Your task to perform on an android device: Open calendar and show me the second week of next month Image 0: 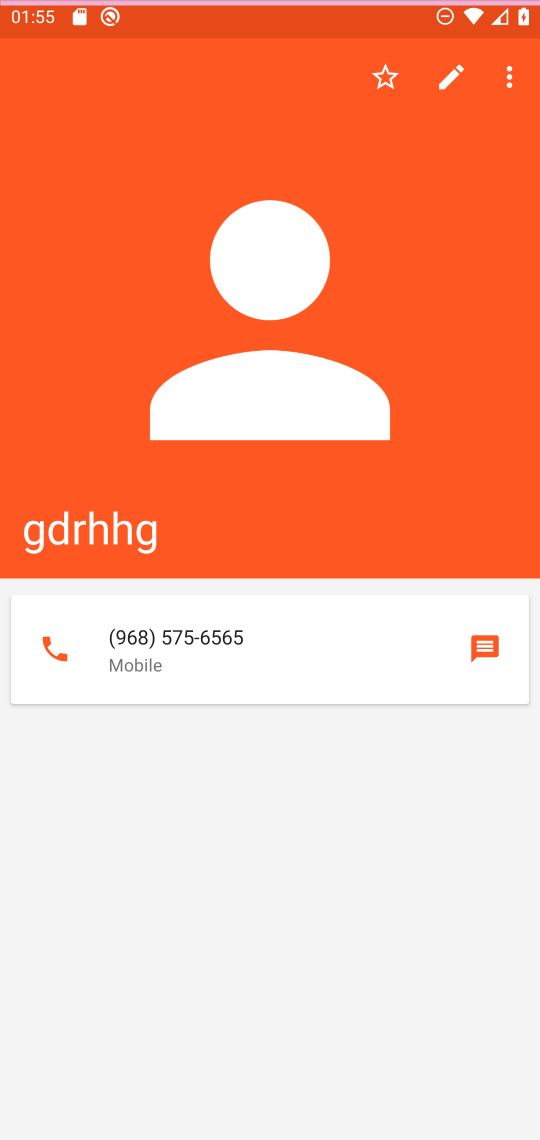
Step 0: press home button
Your task to perform on an android device: Open calendar and show me the second week of next month Image 1: 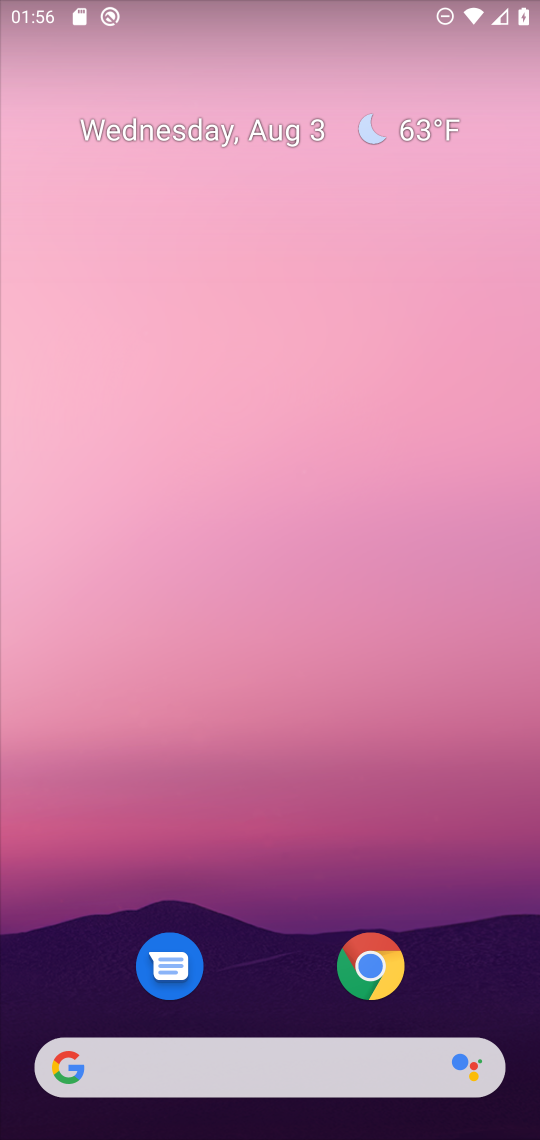
Step 1: drag from (264, 881) to (248, 422)
Your task to perform on an android device: Open calendar and show me the second week of next month Image 2: 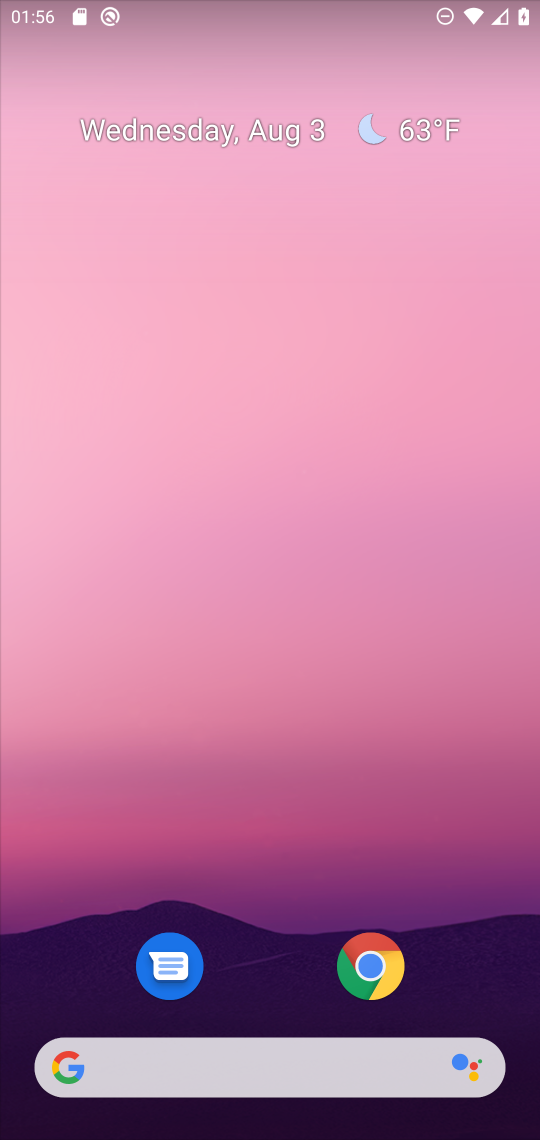
Step 2: drag from (283, 965) to (245, 444)
Your task to perform on an android device: Open calendar and show me the second week of next month Image 3: 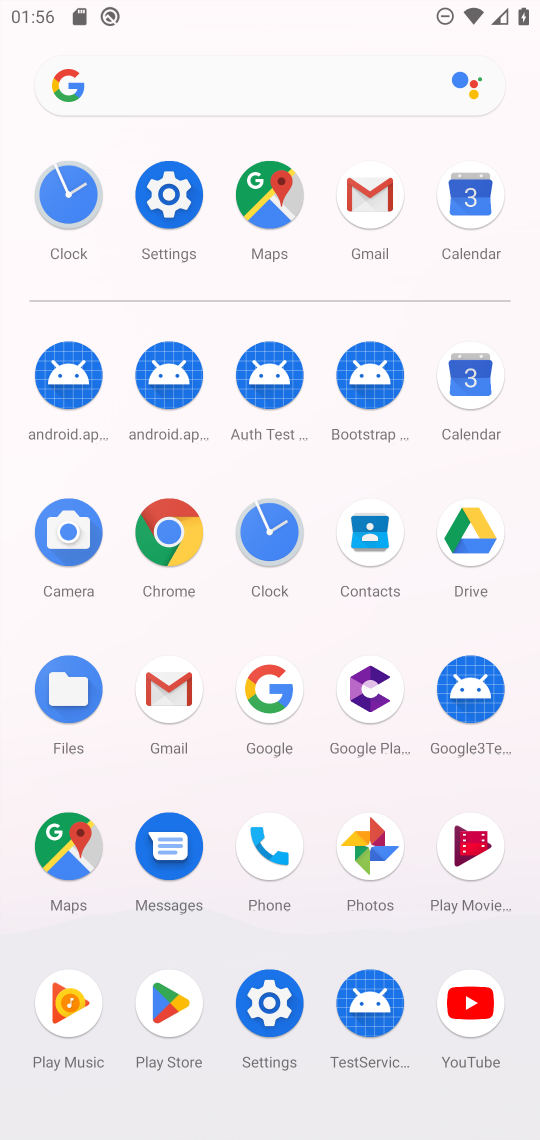
Step 3: click (464, 203)
Your task to perform on an android device: Open calendar and show me the second week of next month Image 4: 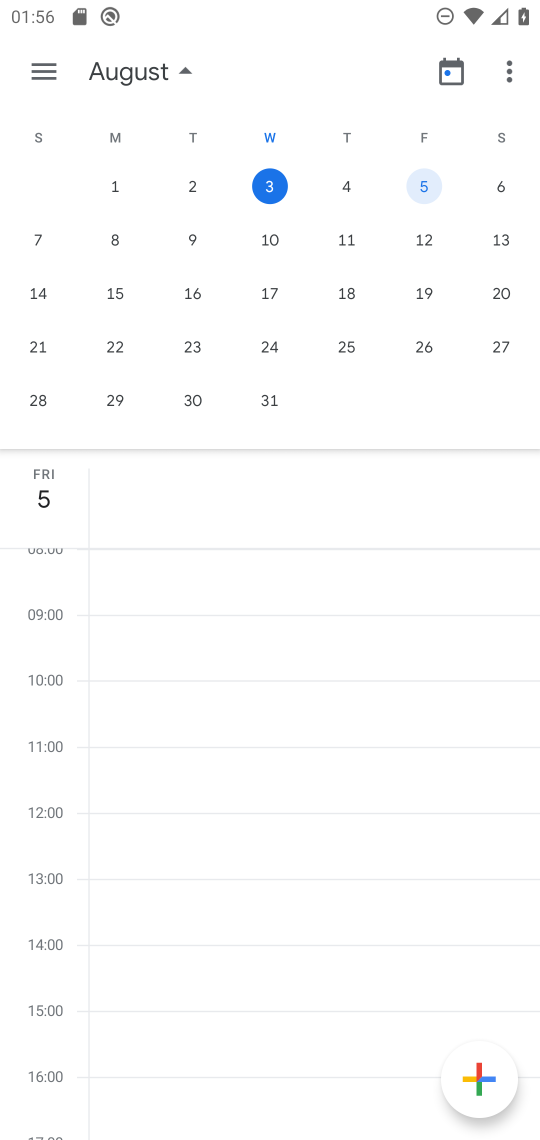
Step 4: drag from (461, 244) to (53, 238)
Your task to perform on an android device: Open calendar and show me the second week of next month Image 5: 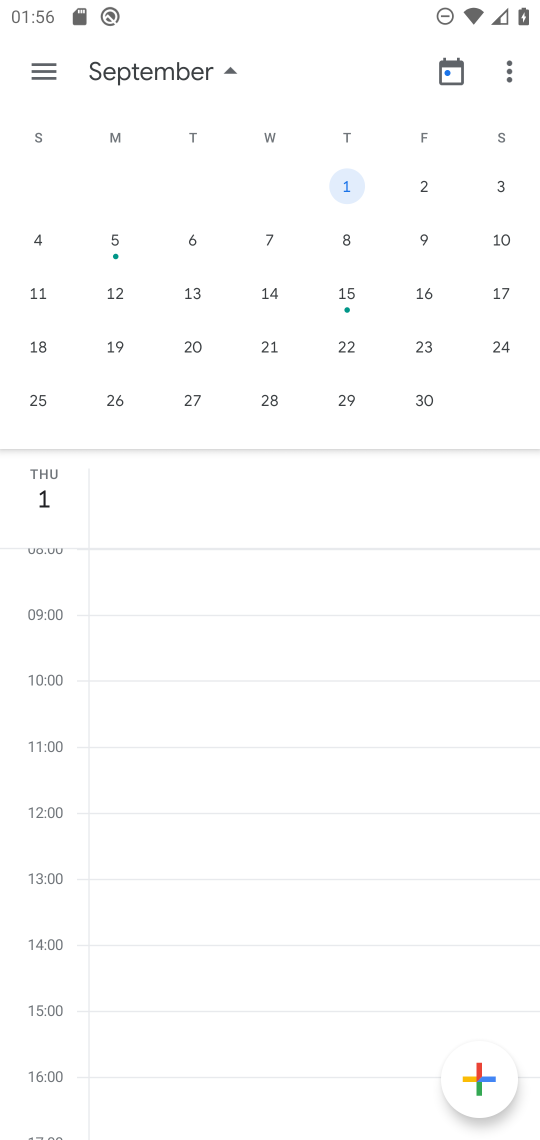
Step 5: click (38, 250)
Your task to perform on an android device: Open calendar and show me the second week of next month Image 6: 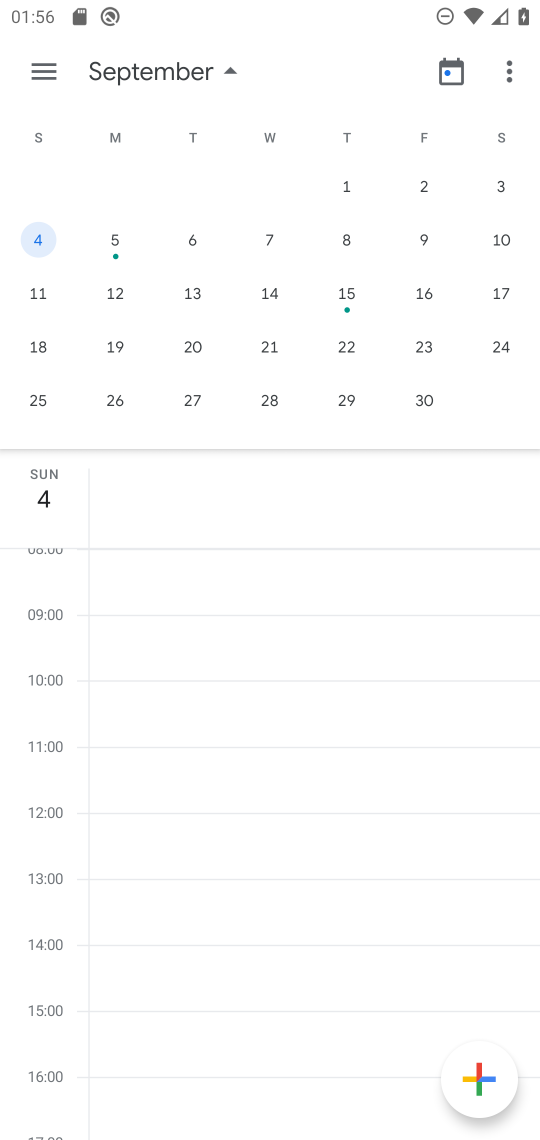
Step 6: task complete